Your task to perform on an android device: toggle show notifications on the lock screen Image 0: 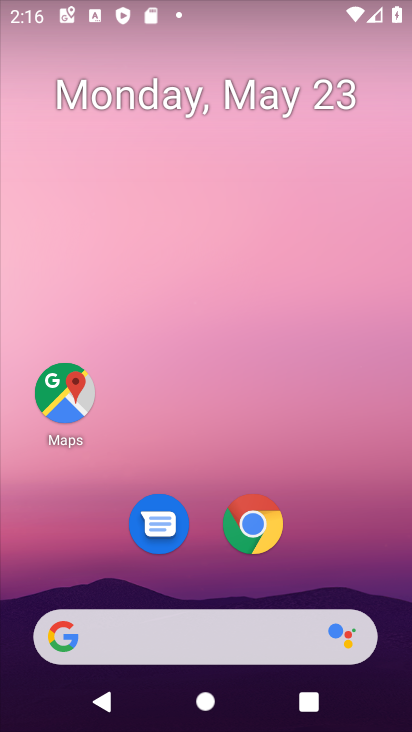
Step 0: drag from (249, 425) to (260, 5)
Your task to perform on an android device: toggle show notifications on the lock screen Image 1: 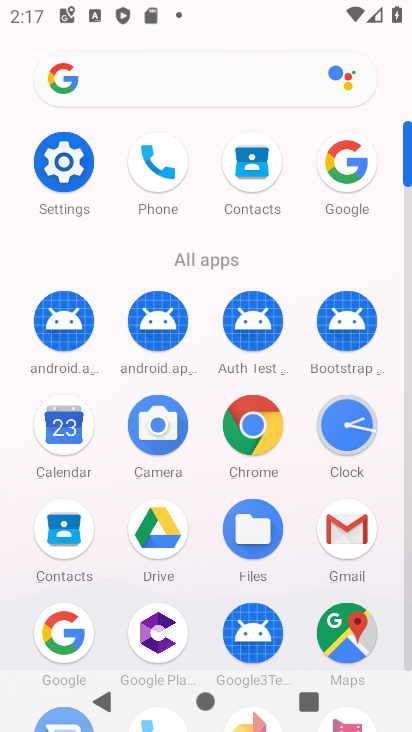
Step 1: click (68, 165)
Your task to perform on an android device: toggle show notifications on the lock screen Image 2: 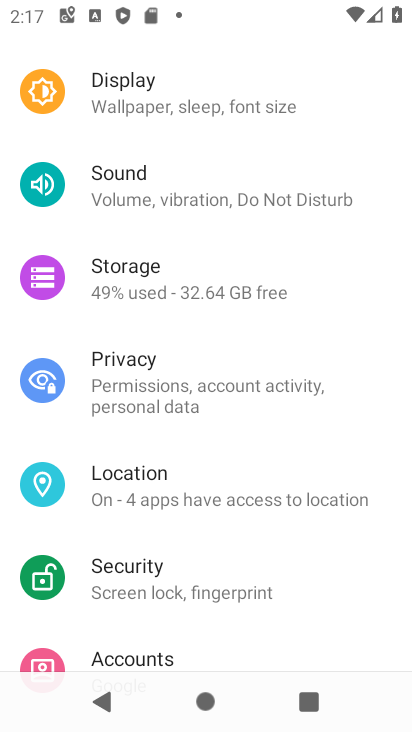
Step 2: drag from (235, 171) to (244, 597)
Your task to perform on an android device: toggle show notifications on the lock screen Image 3: 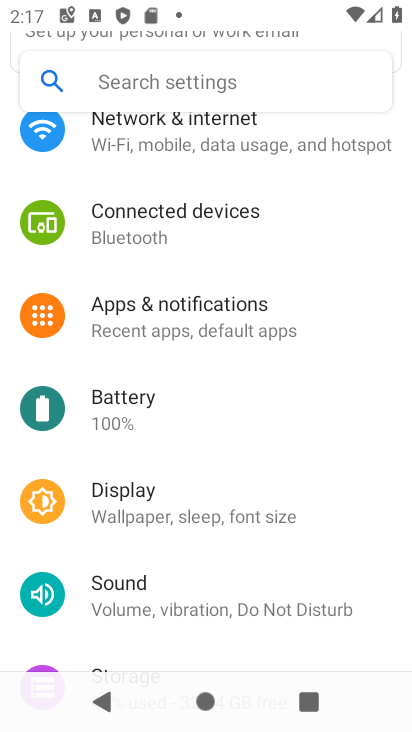
Step 3: click (218, 317)
Your task to perform on an android device: toggle show notifications on the lock screen Image 4: 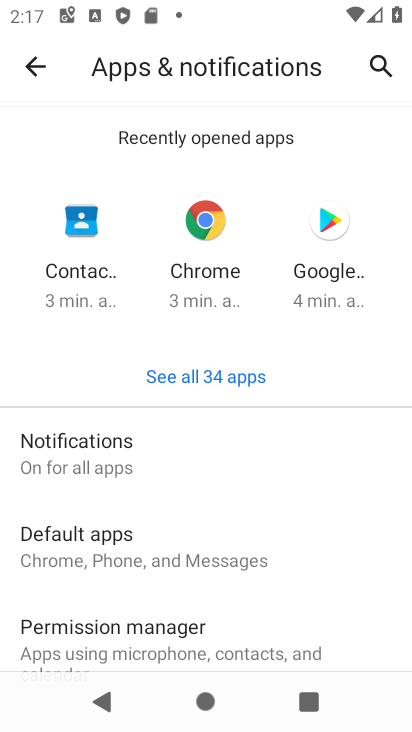
Step 4: click (149, 450)
Your task to perform on an android device: toggle show notifications on the lock screen Image 5: 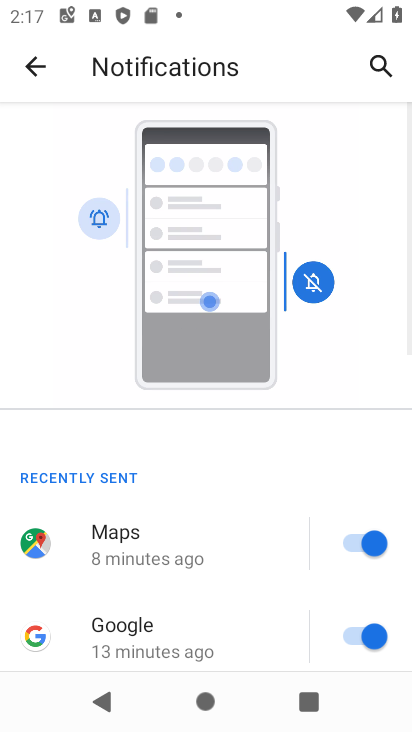
Step 5: drag from (211, 533) to (312, 10)
Your task to perform on an android device: toggle show notifications on the lock screen Image 6: 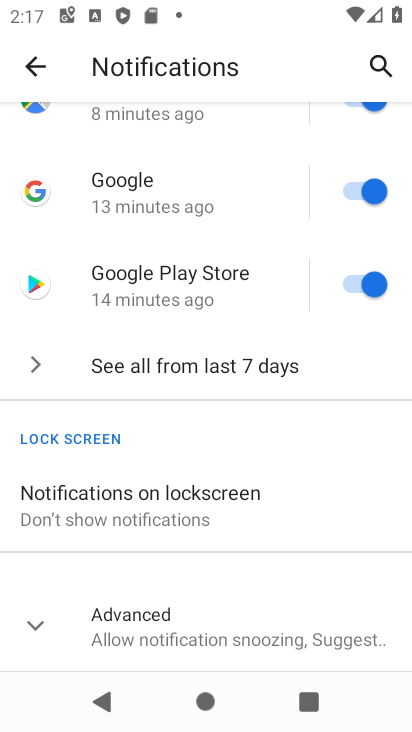
Step 6: click (224, 489)
Your task to perform on an android device: toggle show notifications on the lock screen Image 7: 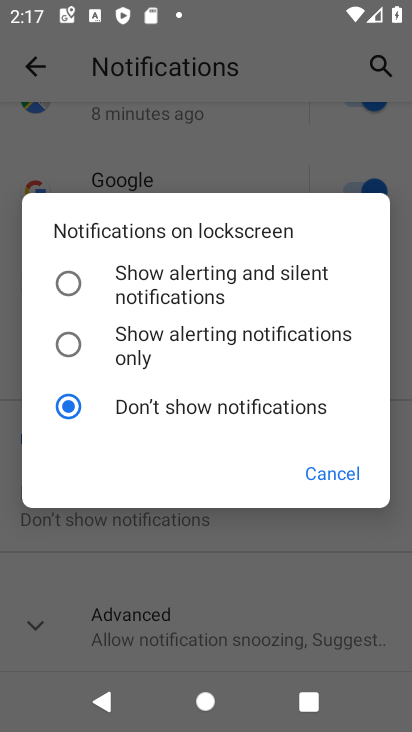
Step 7: click (72, 280)
Your task to perform on an android device: toggle show notifications on the lock screen Image 8: 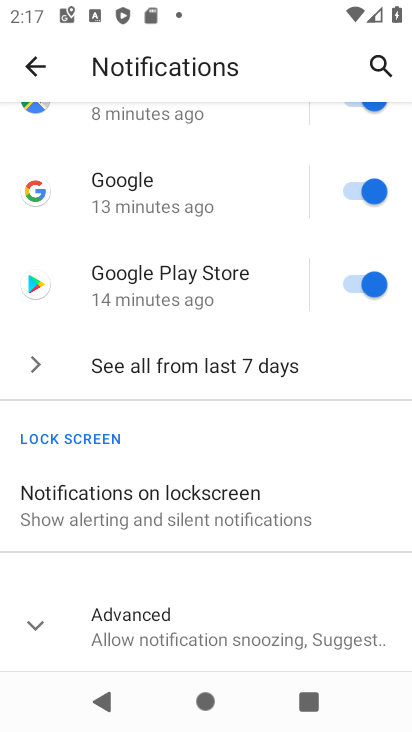
Step 8: task complete